Your task to perform on an android device: turn smart compose on in the gmail app Image 0: 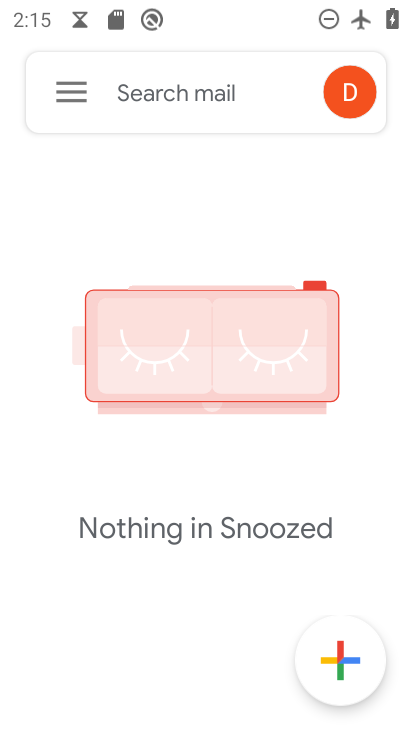
Step 0: click (79, 98)
Your task to perform on an android device: turn smart compose on in the gmail app Image 1: 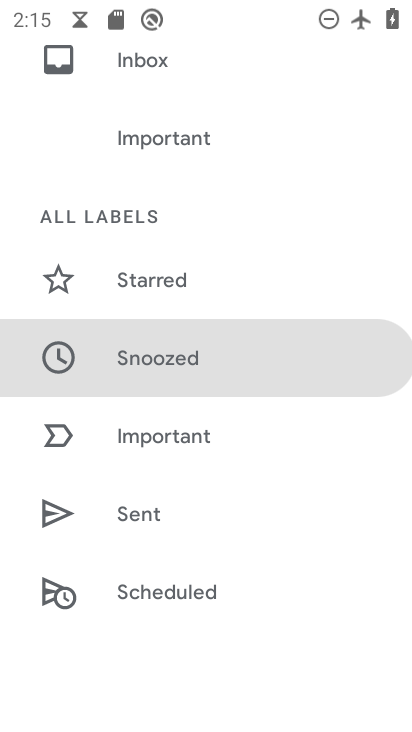
Step 1: drag from (208, 582) to (266, 174)
Your task to perform on an android device: turn smart compose on in the gmail app Image 2: 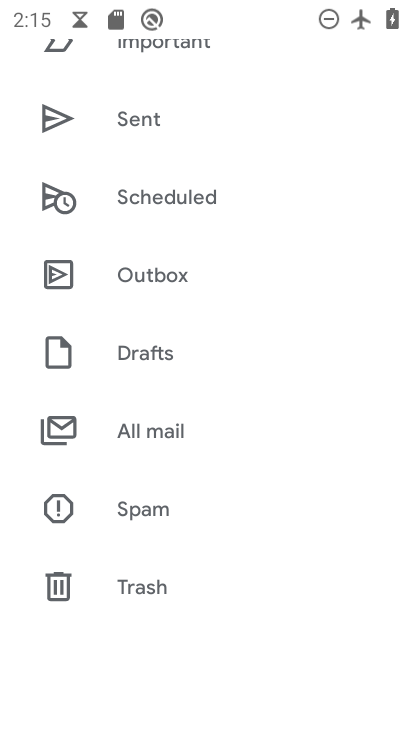
Step 2: drag from (197, 573) to (237, 248)
Your task to perform on an android device: turn smart compose on in the gmail app Image 3: 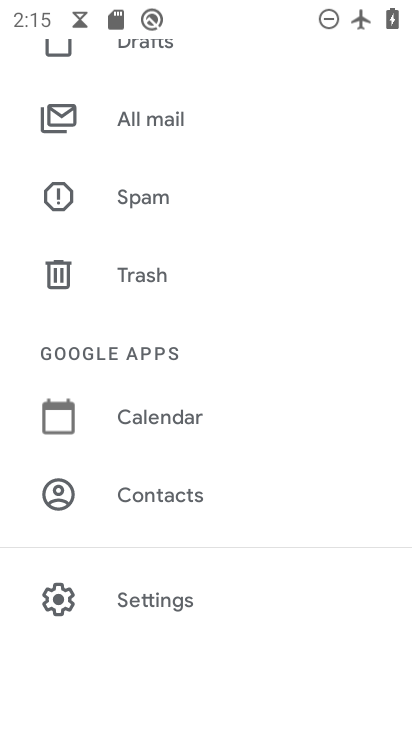
Step 3: click (174, 598)
Your task to perform on an android device: turn smart compose on in the gmail app Image 4: 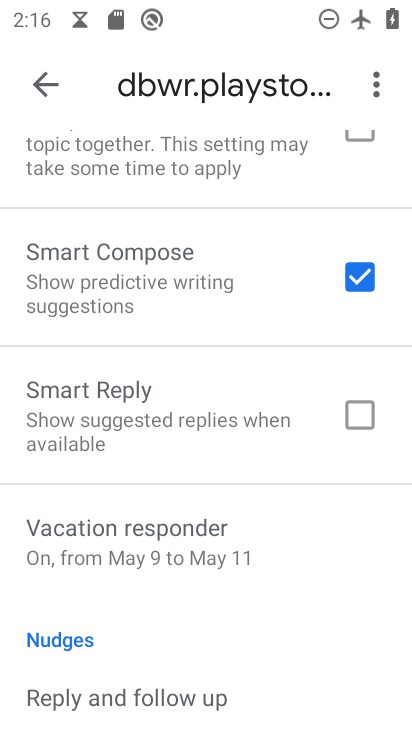
Step 4: task complete